Your task to perform on an android device: Open Google Maps and go to "Timeline" Image 0: 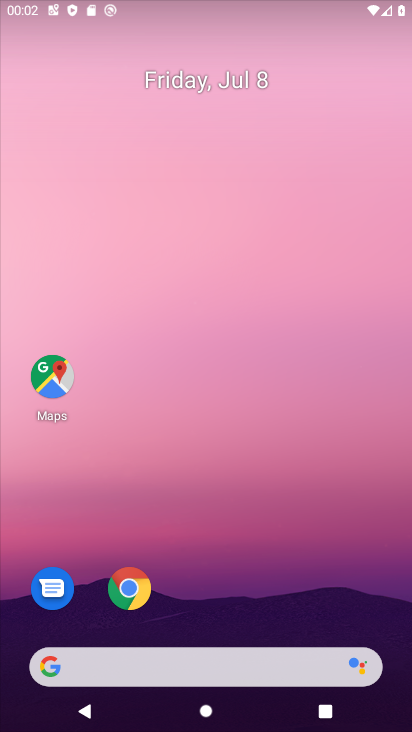
Step 0: drag from (203, 615) to (203, 47)
Your task to perform on an android device: Open Google Maps and go to "Timeline" Image 1: 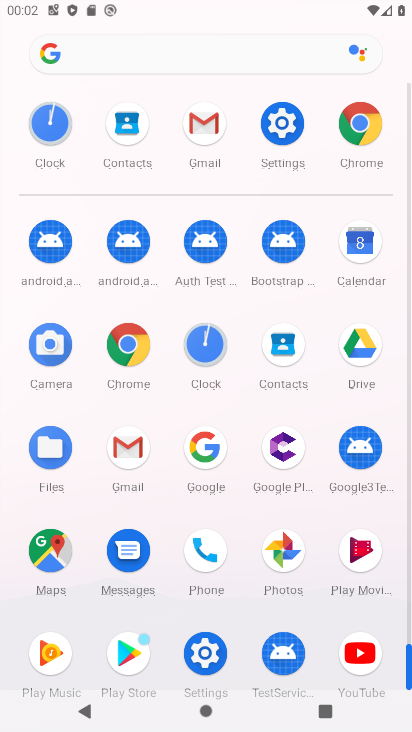
Step 1: drag from (169, 632) to (172, 289)
Your task to perform on an android device: Open Google Maps and go to "Timeline" Image 2: 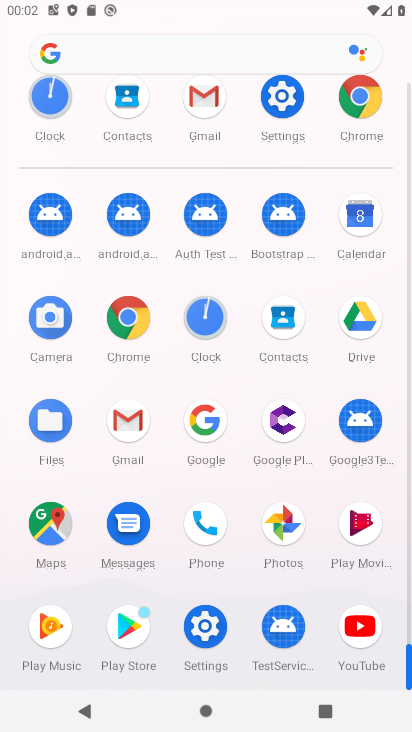
Step 2: drag from (156, 561) to (162, 374)
Your task to perform on an android device: Open Google Maps and go to "Timeline" Image 3: 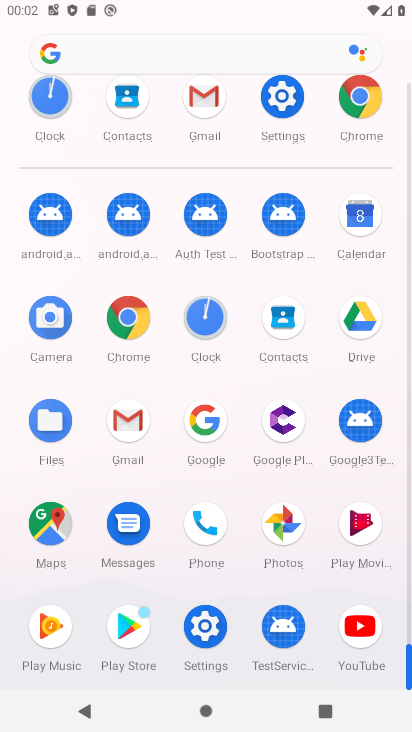
Step 3: drag from (166, 495) to (160, 200)
Your task to perform on an android device: Open Google Maps and go to "Timeline" Image 4: 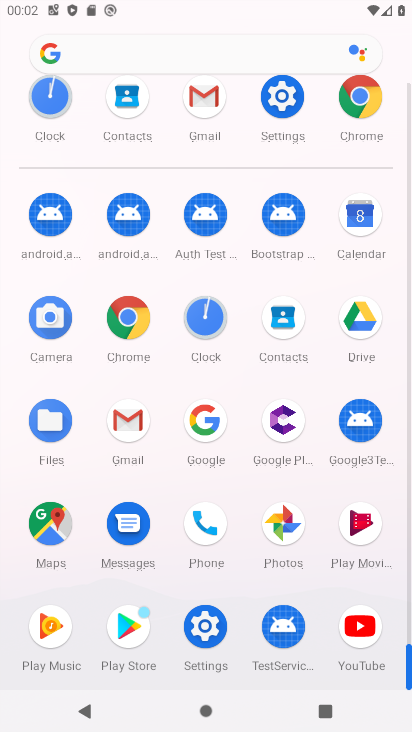
Step 4: click (39, 527)
Your task to perform on an android device: Open Google Maps and go to "Timeline" Image 5: 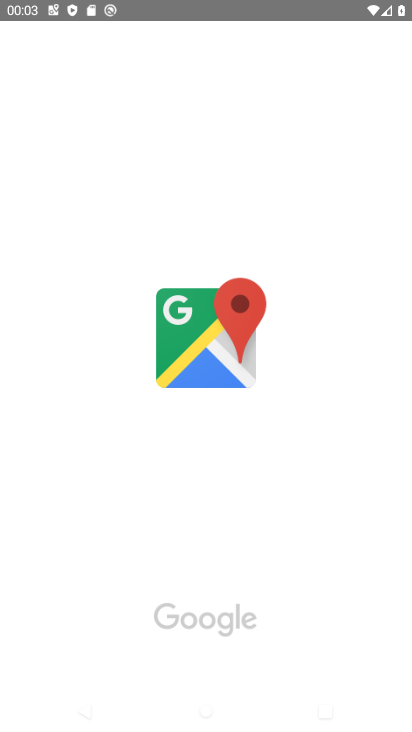
Step 5: drag from (235, 448) to (236, 265)
Your task to perform on an android device: Open Google Maps and go to "Timeline" Image 6: 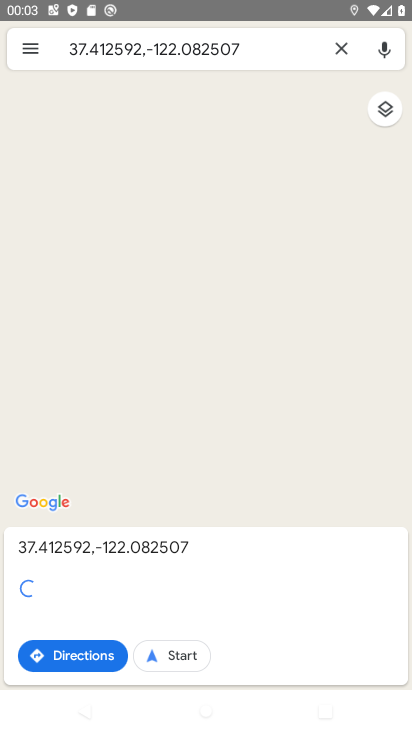
Step 6: drag from (190, 570) to (216, 123)
Your task to perform on an android device: Open Google Maps and go to "Timeline" Image 7: 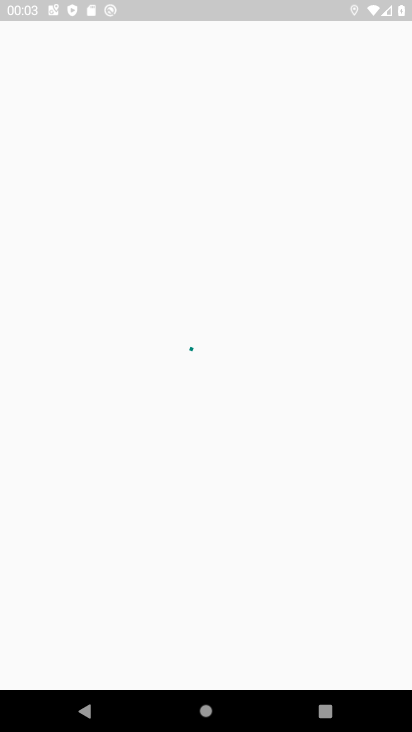
Step 7: press home button
Your task to perform on an android device: Open Google Maps and go to "Timeline" Image 8: 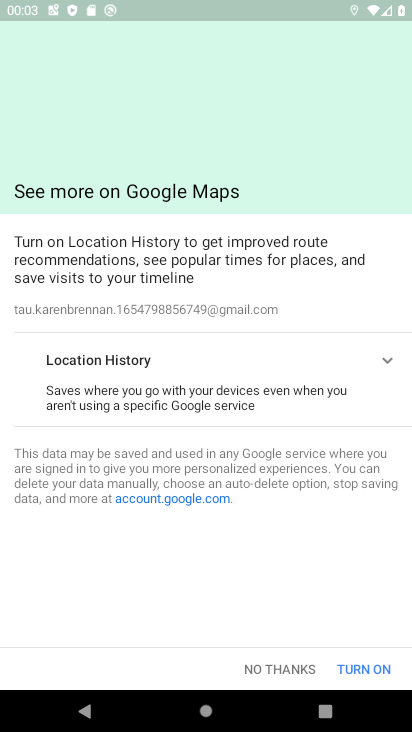
Step 8: press home button
Your task to perform on an android device: Open Google Maps and go to "Timeline" Image 9: 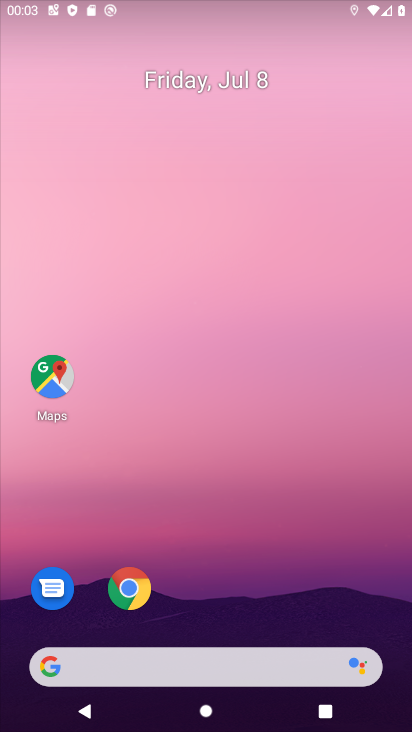
Step 9: press home button
Your task to perform on an android device: Open Google Maps and go to "Timeline" Image 10: 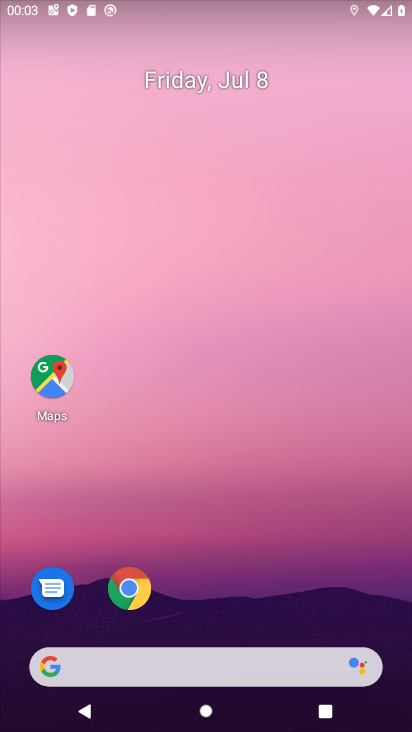
Step 10: drag from (224, 571) to (311, 81)
Your task to perform on an android device: Open Google Maps and go to "Timeline" Image 11: 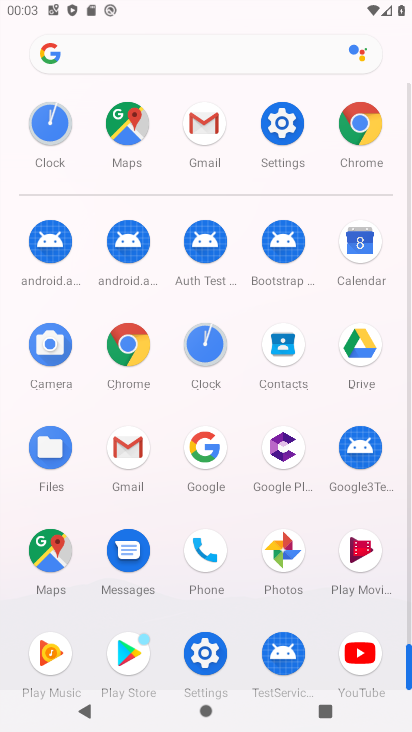
Step 11: drag from (170, 624) to (182, 226)
Your task to perform on an android device: Open Google Maps and go to "Timeline" Image 12: 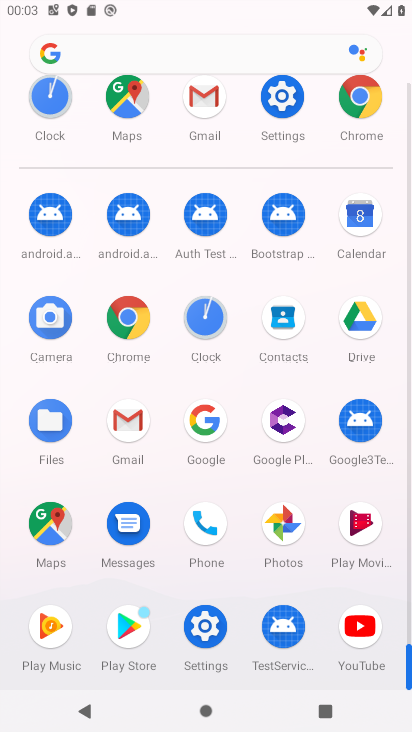
Step 12: drag from (253, 574) to (281, 295)
Your task to perform on an android device: Open Google Maps and go to "Timeline" Image 13: 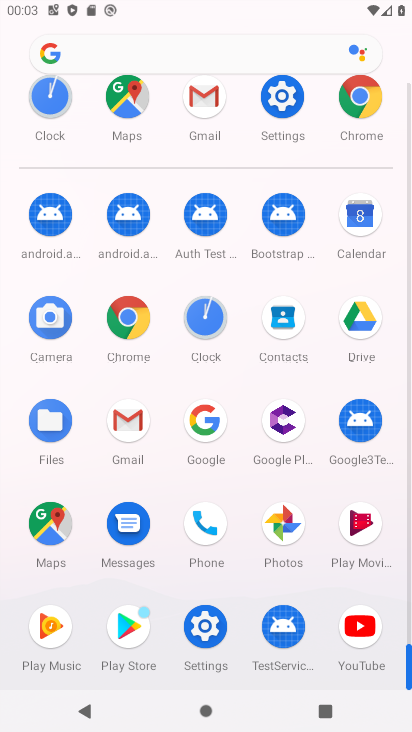
Step 13: drag from (239, 592) to (233, 344)
Your task to perform on an android device: Open Google Maps and go to "Timeline" Image 14: 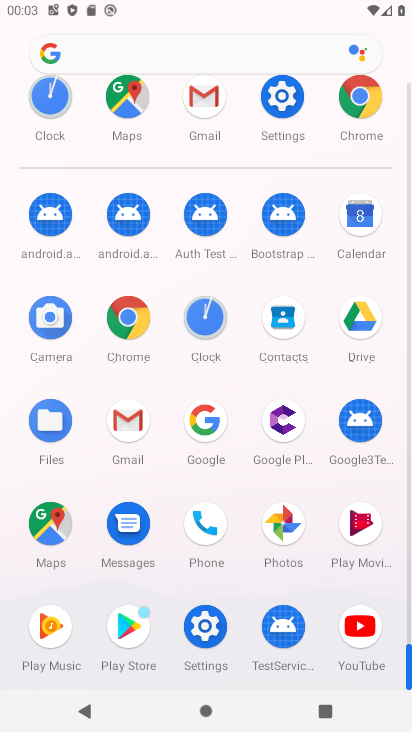
Step 14: drag from (236, 551) to (235, 363)
Your task to perform on an android device: Open Google Maps and go to "Timeline" Image 15: 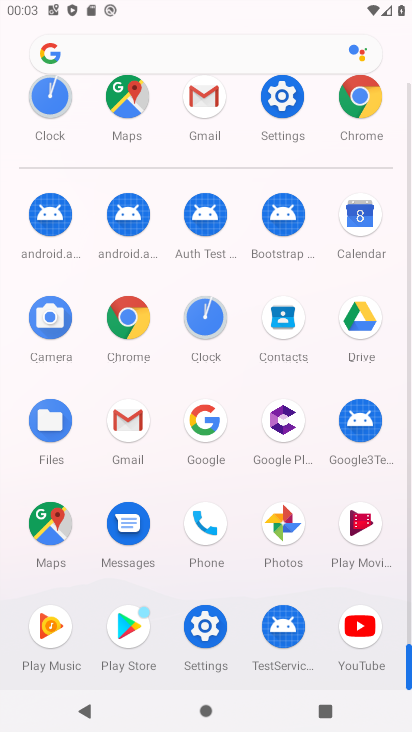
Step 15: drag from (227, 574) to (229, 332)
Your task to perform on an android device: Open Google Maps and go to "Timeline" Image 16: 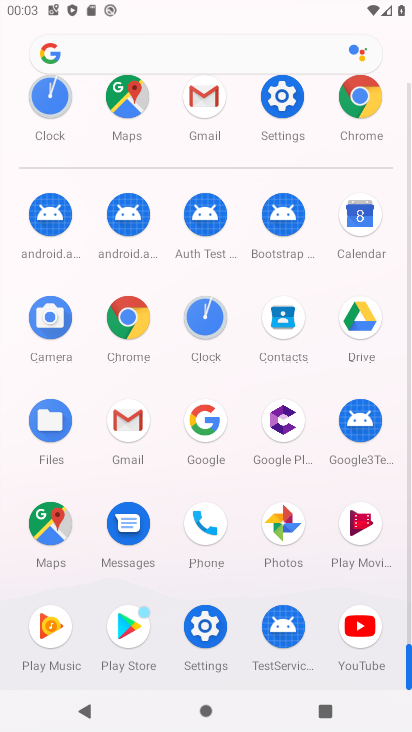
Step 16: drag from (233, 544) to (266, 298)
Your task to perform on an android device: Open Google Maps and go to "Timeline" Image 17: 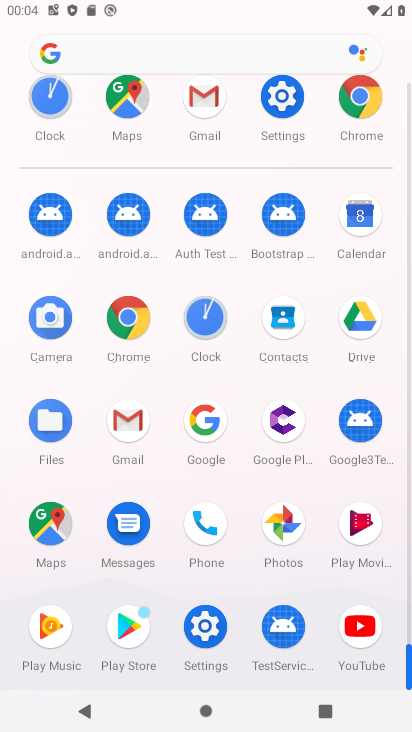
Step 17: click (57, 518)
Your task to perform on an android device: Open Google Maps and go to "Timeline" Image 18: 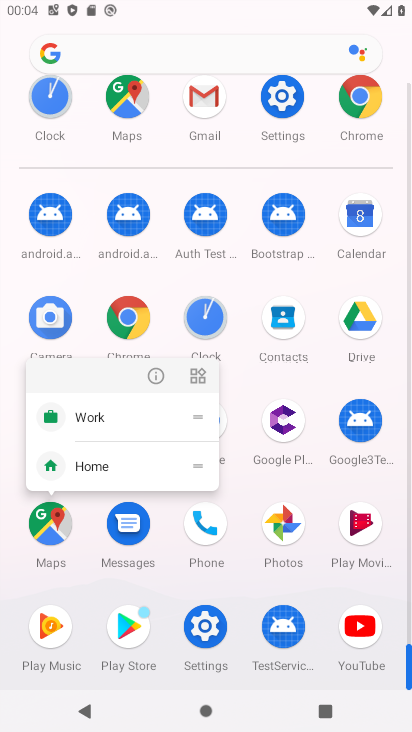
Step 18: click (155, 368)
Your task to perform on an android device: Open Google Maps and go to "Timeline" Image 19: 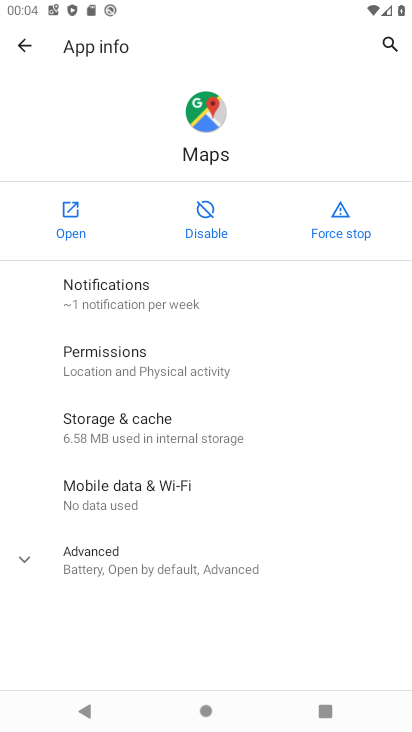
Step 19: click (59, 210)
Your task to perform on an android device: Open Google Maps and go to "Timeline" Image 20: 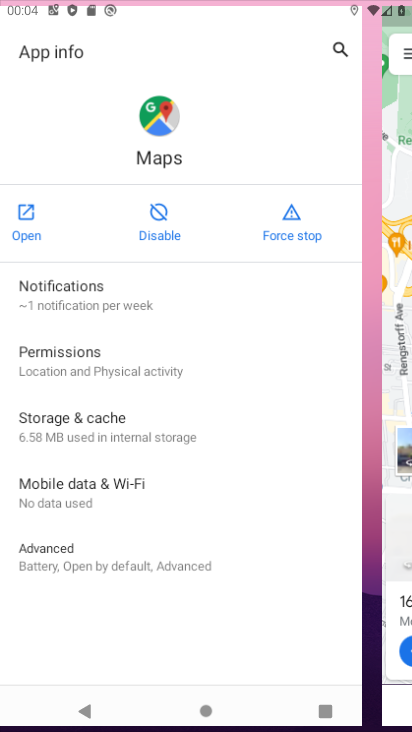
Step 20: drag from (220, 605) to (262, 209)
Your task to perform on an android device: Open Google Maps and go to "Timeline" Image 21: 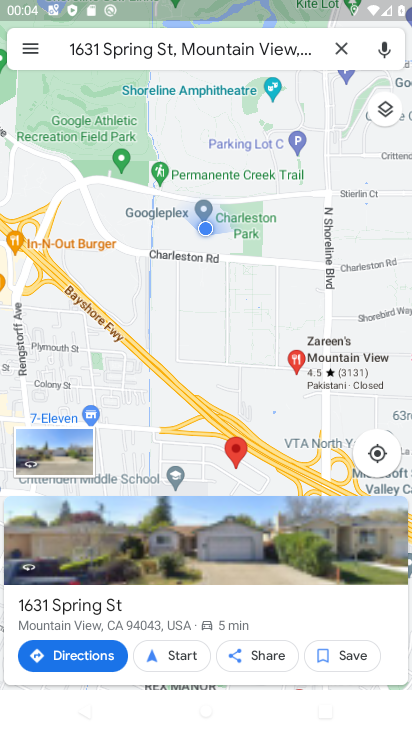
Step 21: drag from (192, 550) to (208, 164)
Your task to perform on an android device: Open Google Maps and go to "Timeline" Image 22: 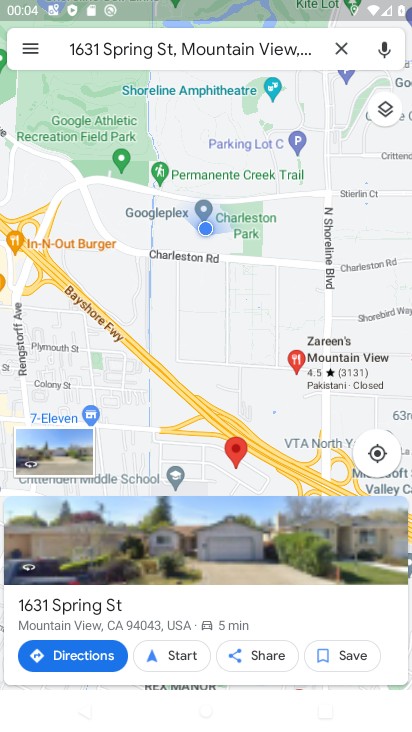
Step 22: drag from (181, 547) to (188, 349)
Your task to perform on an android device: Open Google Maps and go to "Timeline" Image 23: 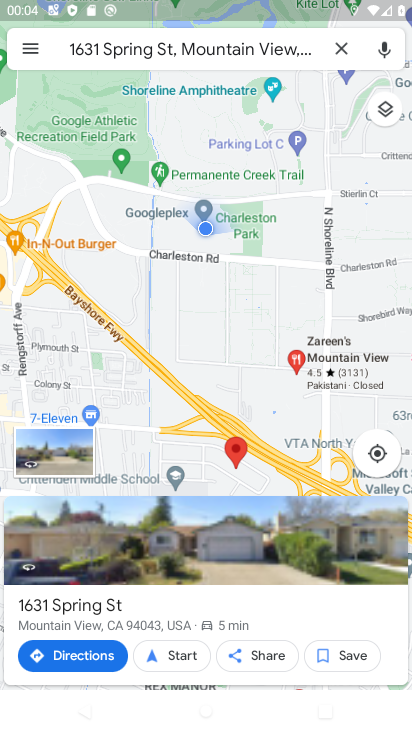
Step 23: drag from (158, 532) to (149, 371)
Your task to perform on an android device: Open Google Maps and go to "Timeline" Image 24: 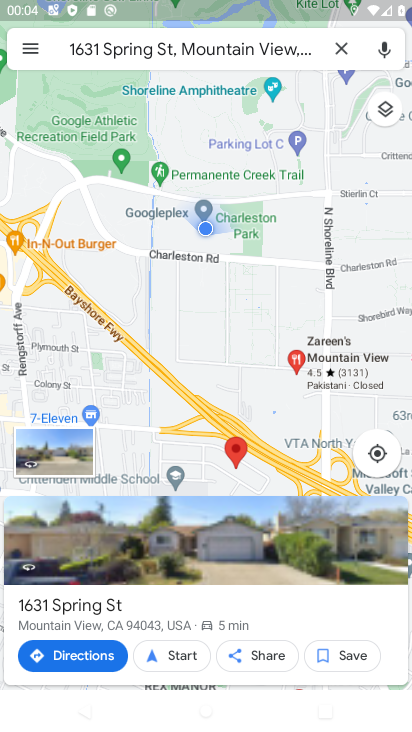
Step 24: drag from (215, 456) to (260, 145)
Your task to perform on an android device: Open Google Maps and go to "Timeline" Image 25: 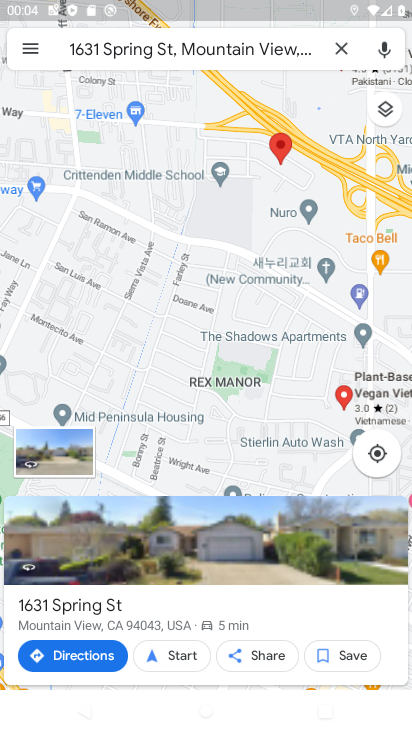
Step 25: drag from (182, 553) to (176, 324)
Your task to perform on an android device: Open Google Maps and go to "Timeline" Image 26: 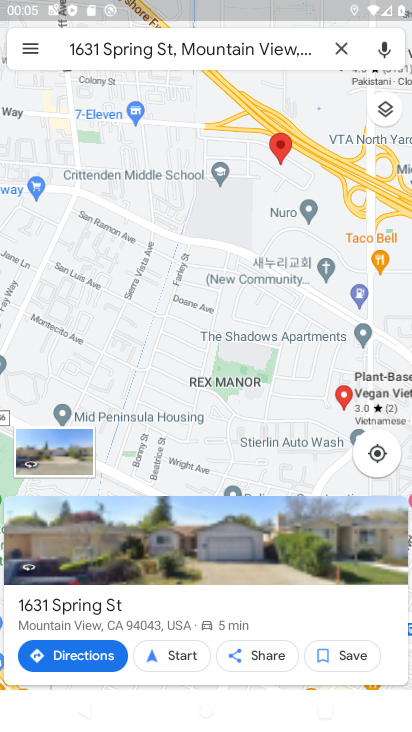
Step 26: drag from (208, 401) to (255, 211)
Your task to perform on an android device: Open Google Maps and go to "Timeline" Image 27: 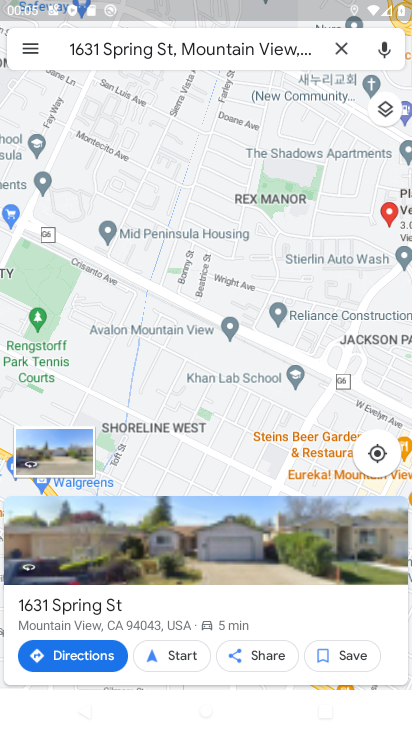
Step 27: drag from (298, 201) to (200, 444)
Your task to perform on an android device: Open Google Maps and go to "Timeline" Image 28: 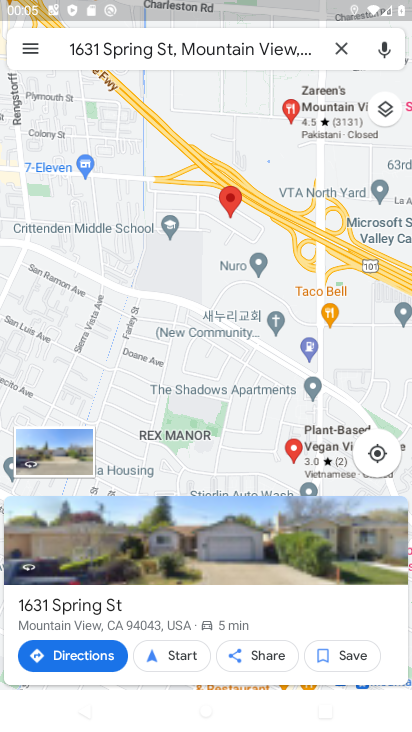
Step 28: click (330, 48)
Your task to perform on an android device: Open Google Maps and go to "Timeline" Image 29: 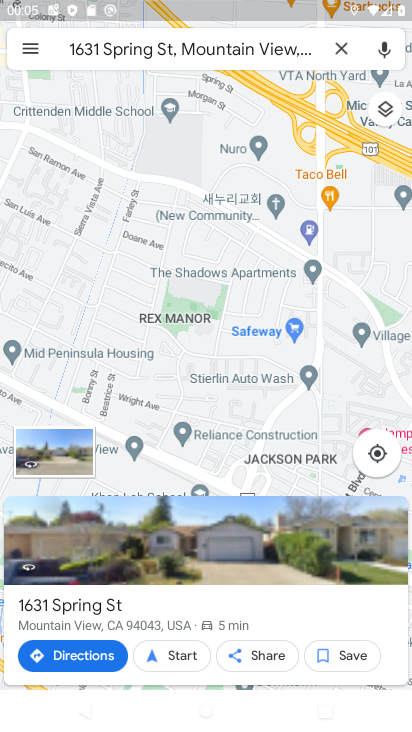
Step 29: click (35, 52)
Your task to perform on an android device: Open Google Maps and go to "Timeline" Image 30: 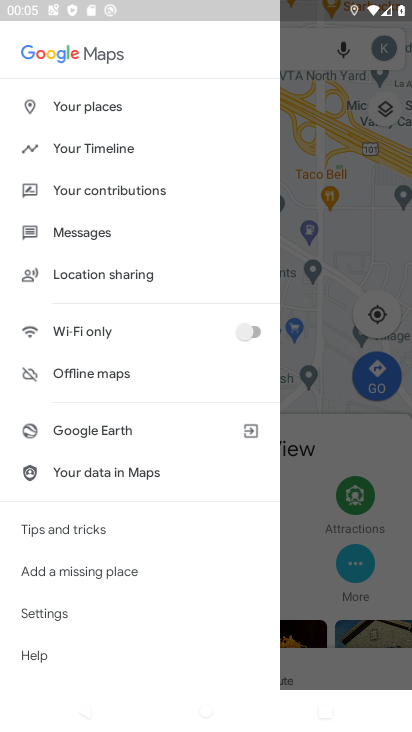
Step 30: drag from (101, 592) to (94, 144)
Your task to perform on an android device: Open Google Maps and go to "Timeline" Image 31: 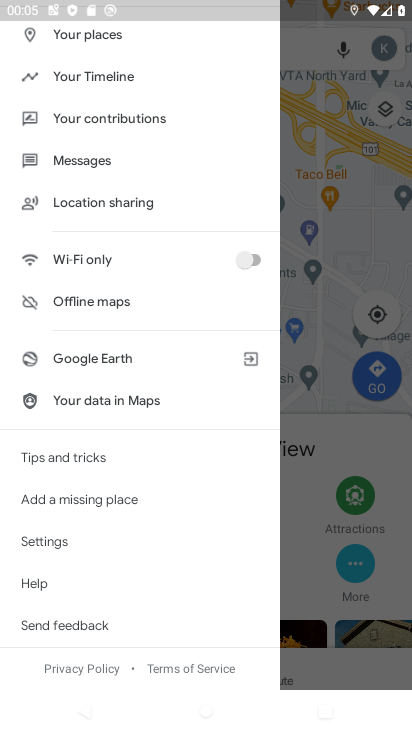
Step 31: drag from (149, 93) to (155, 603)
Your task to perform on an android device: Open Google Maps and go to "Timeline" Image 32: 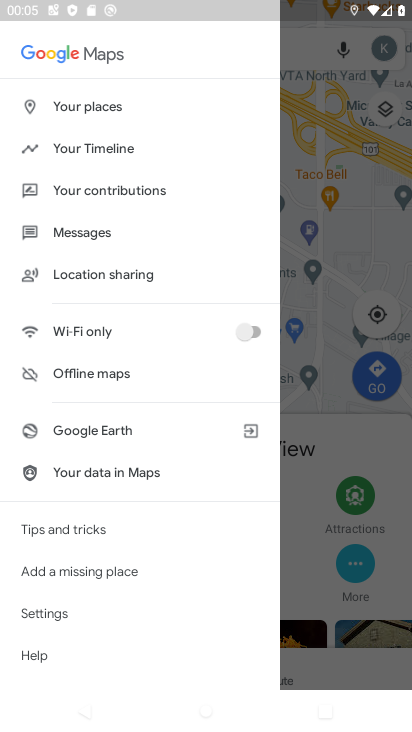
Step 32: drag from (128, 141) to (126, 725)
Your task to perform on an android device: Open Google Maps and go to "Timeline" Image 33: 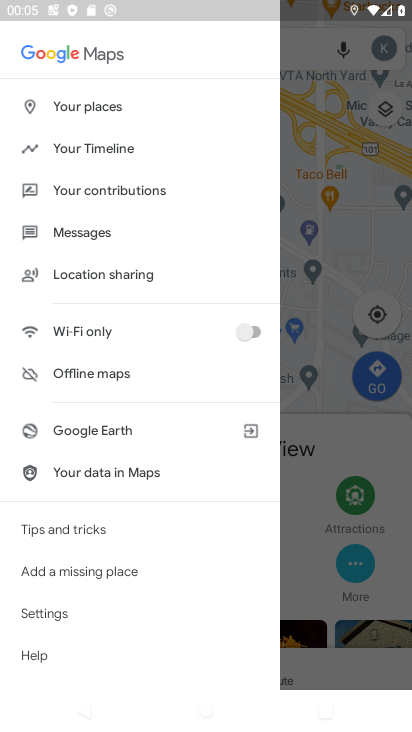
Step 33: click (93, 136)
Your task to perform on an android device: Open Google Maps and go to "Timeline" Image 34: 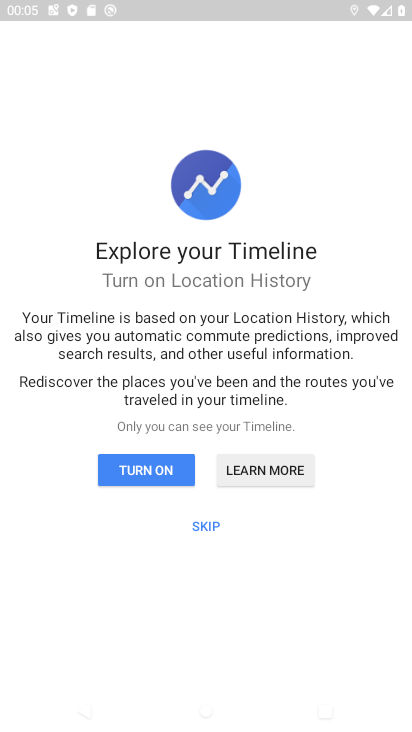
Step 34: drag from (191, 579) to (183, 189)
Your task to perform on an android device: Open Google Maps and go to "Timeline" Image 35: 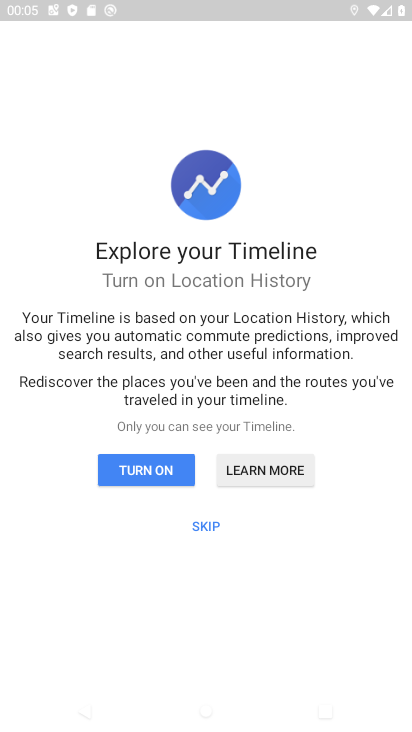
Step 35: click (200, 530)
Your task to perform on an android device: Open Google Maps and go to "Timeline" Image 36: 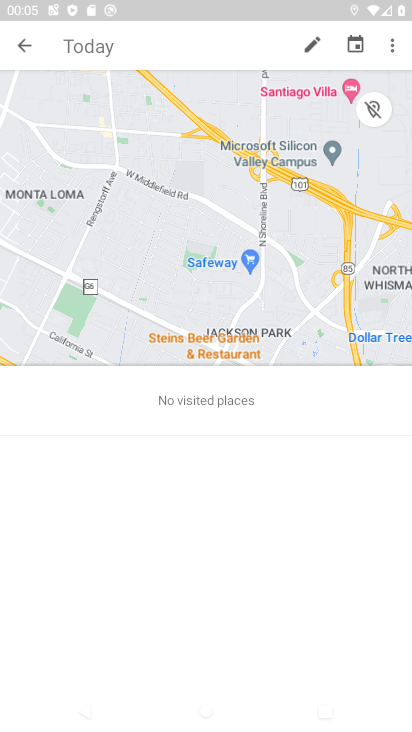
Step 36: drag from (257, 171) to (407, 245)
Your task to perform on an android device: Open Google Maps and go to "Timeline" Image 37: 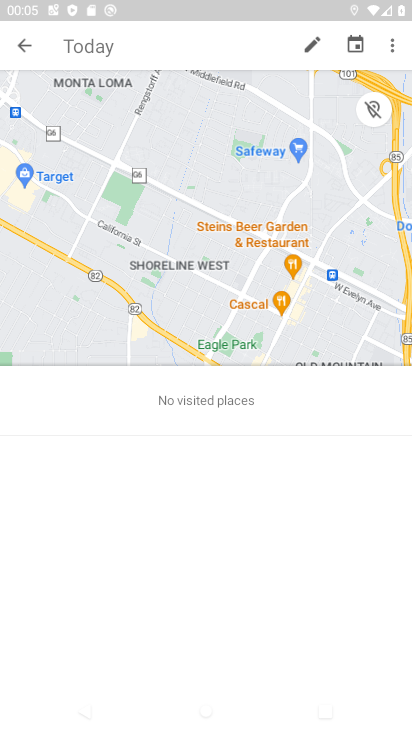
Step 37: drag from (151, 545) to (239, 85)
Your task to perform on an android device: Open Google Maps and go to "Timeline" Image 38: 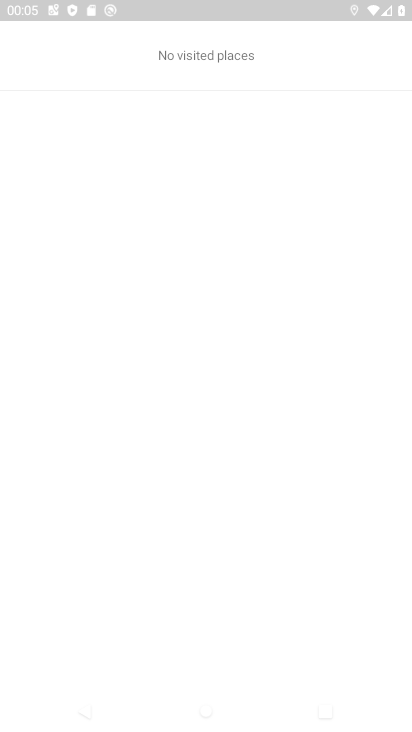
Step 38: drag from (292, 496) to (279, 219)
Your task to perform on an android device: Open Google Maps and go to "Timeline" Image 39: 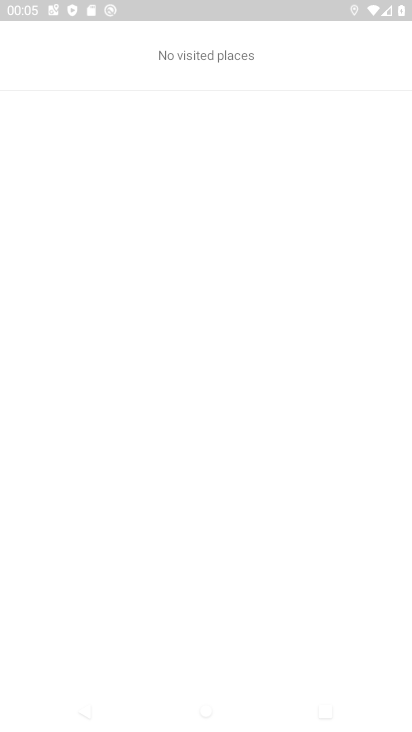
Step 39: drag from (211, 159) to (341, 553)
Your task to perform on an android device: Open Google Maps and go to "Timeline" Image 40: 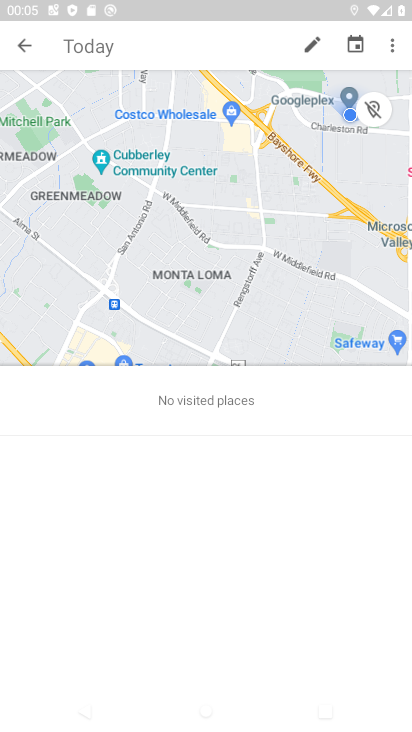
Step 40: drag from (234, 468) to (241, 266)
Your task to perform on an android device: Open Google Maps and go to "Timeline" Image 41: 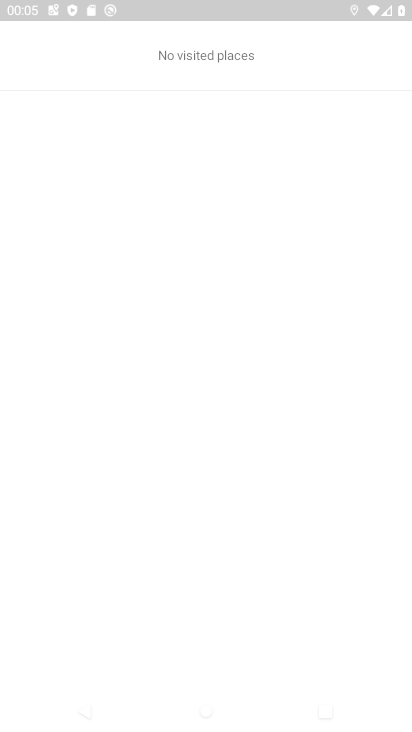
Step 41: drag from (97, 47) to (357, 615)
Your task to perform on an android device: Open Google Maps and go to "Timeline" Image 42: 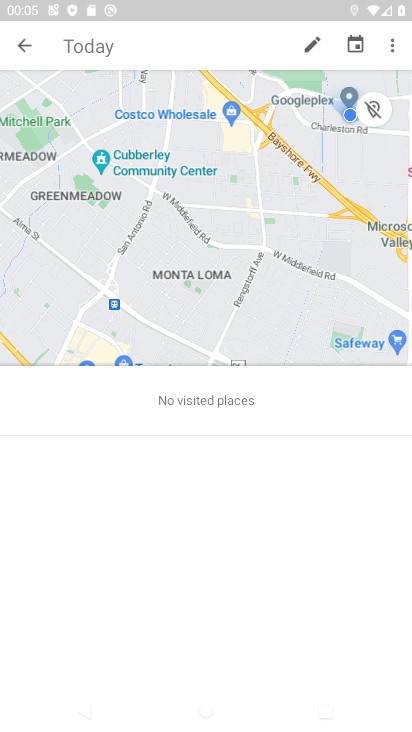
Step 42: drag from (240, 533) to (237, 249)
Your task to perform on an android device: Open Google Maps and go to "Timeline" Image 43: 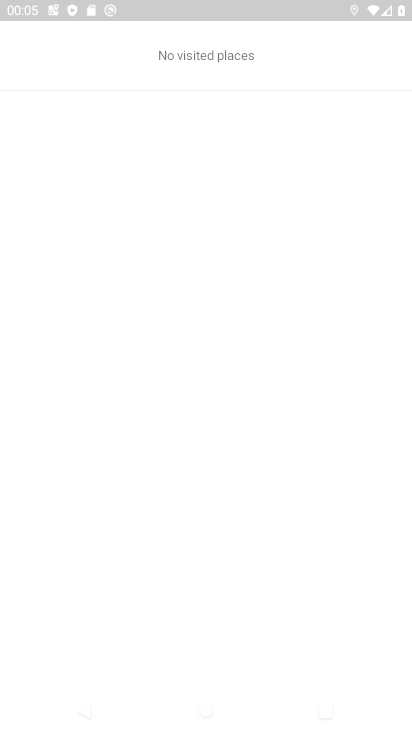
Step 43: drag from (133, 118) to (239, 414)
Your task to perform on an android device: Open Google Maps and go to "Timeline" Image 44: 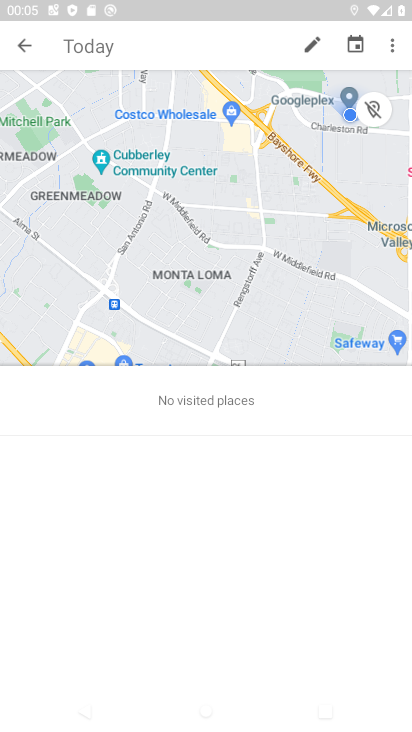
Step 44: drag from (159, 433) to (389, 162)
Your task to perform on an android device: Open Google Maps and go to "Timeline" Image 45: 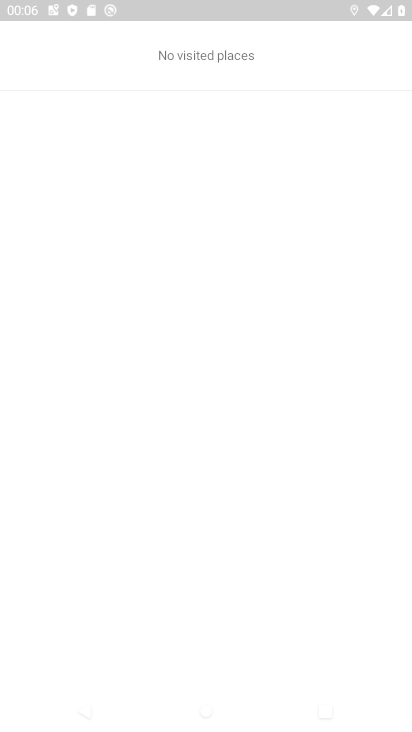
Step 45: drag from (217, 602) to (241, 402)
Your task to perform on an android device: Open Google Maps and go to "Timeline" Image 46: 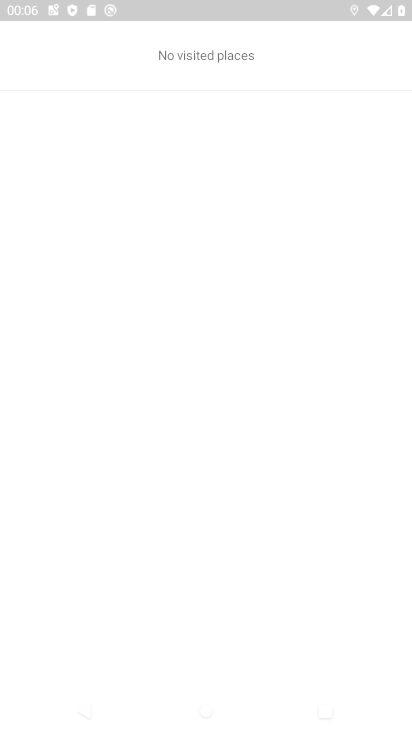
Step 46: drag from (224, 519) to (196, 101)
Your task to perform on an android device: Open Google Maps and go to "Timeline" Image 47: 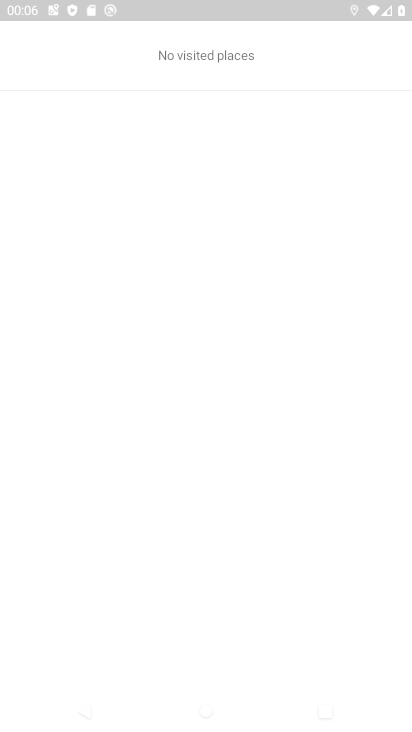
Step 47: drag from (202, 373) to (202, 223)
Your task to perform on an android device: Open Google Maps and go to "Timeline" Image 48: 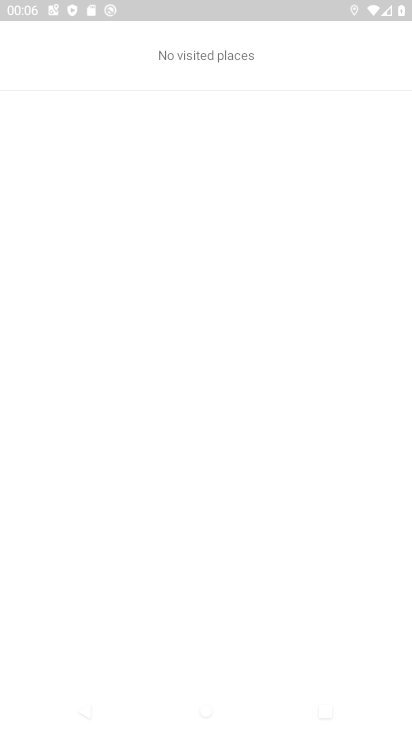
Step 48: click (191, 96)
Your task to perform on an android device: Open Google Maps and go to "Timeline" Image 49: 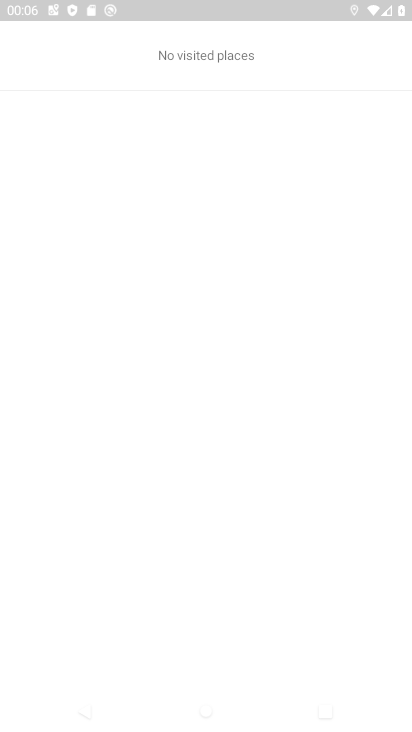
Step 49: press home button
Your task to perform on an android device: Open Google Maps and go to "Timeline" Image 50: 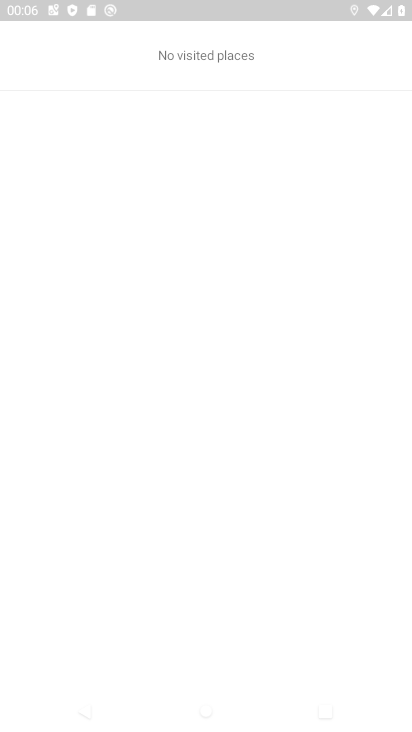
Step 50: press home button
Your task to perform on an android device: Open Google Maps and go to "Timeline" Image 51: 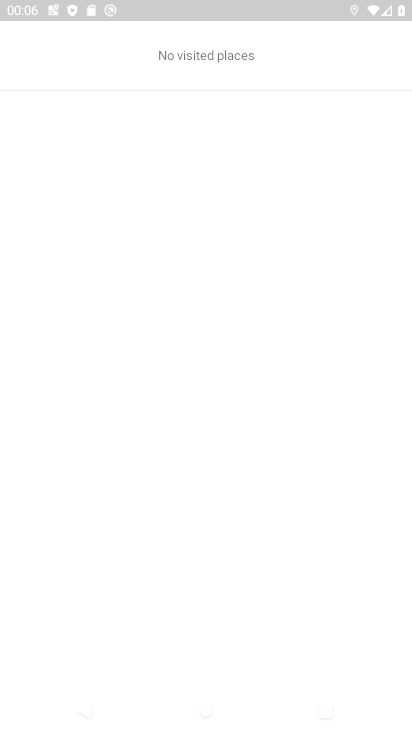
Step 51: drag from (216, 524) to (246, 0)
Your task to perform on an android device: Open Google Maps and go to "Timeline" Image 52: 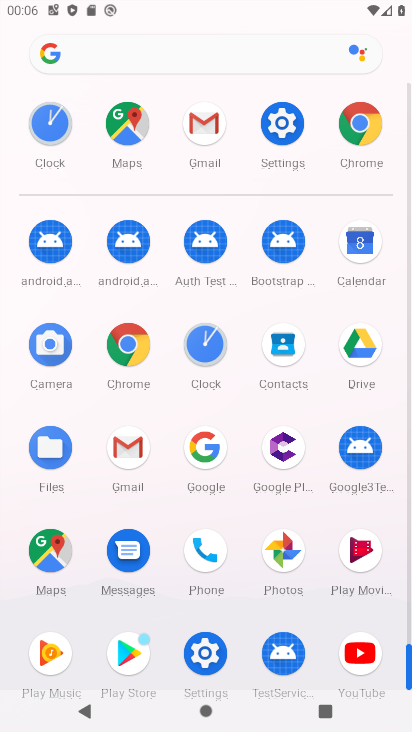
Step 52: drag from (165, 624) to (148, 281)
Your task to perform on an android device: Open Google Maps and go to "Timeline" Image 53: 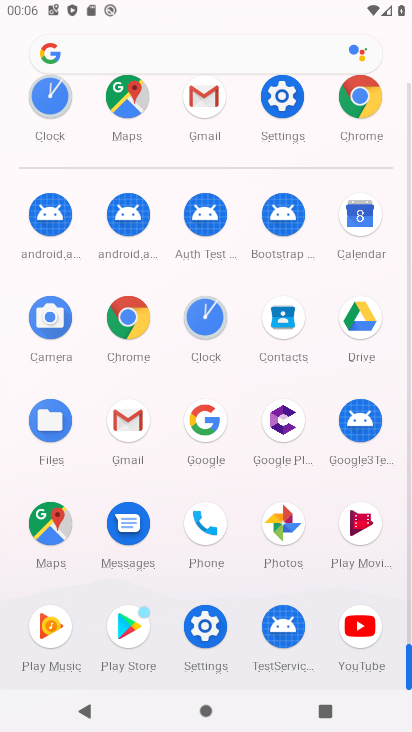
Step 53: click (120, 417)
Your task to perform on an android device: Open Google Maps and go to "Timeline" Image 54: 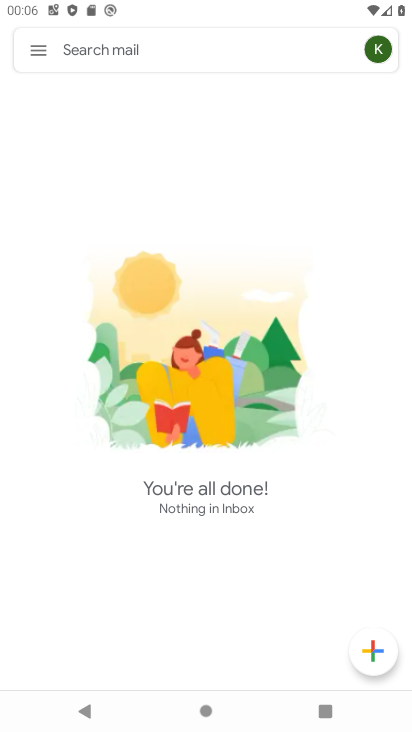
Step 54: drag from (213, 623) to (251, 483)
Your task to perform on an android device: Open Google Maps and go to "Timeline" Image 55: 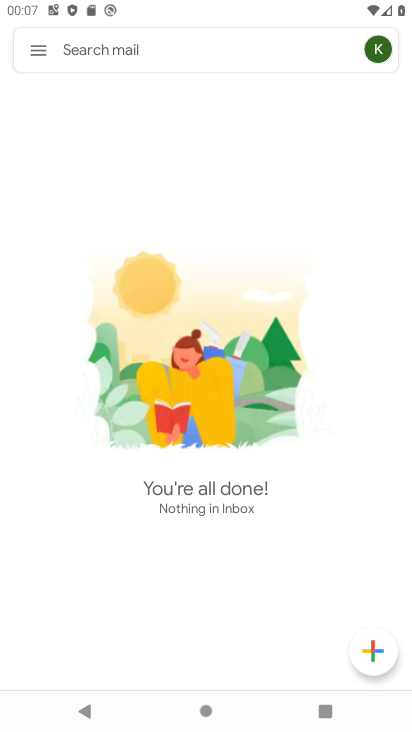
Step 55: drag from (220, 625) to (169, 194)
Your task to perform on an android device: Open Google Maps and go to "Timeline" Image 56: 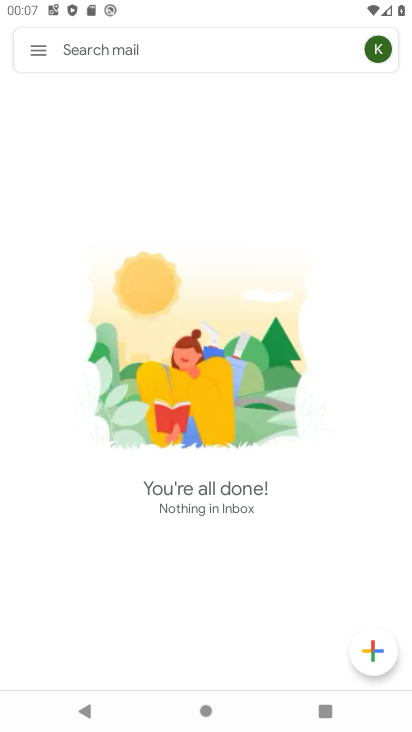
Step 56: press home button
Your task to perform on an android device: Open Google Maps and go to "Timeline" Image 57: 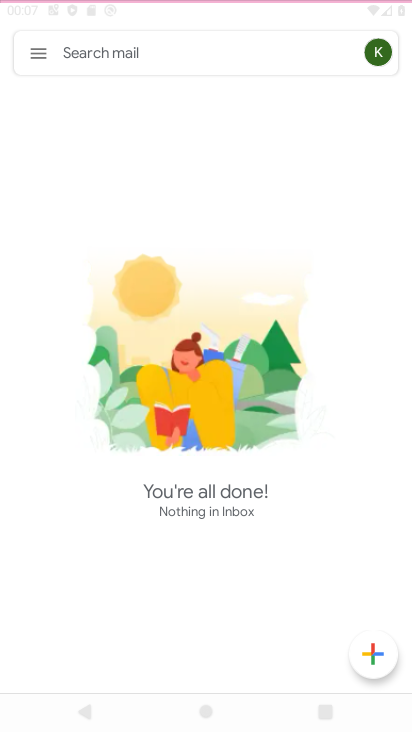
Step 57: drag from (159, 584) to (227, 147)
Your task to perform on an android device: Open Google Maps and go to "Timeline" Image 58: 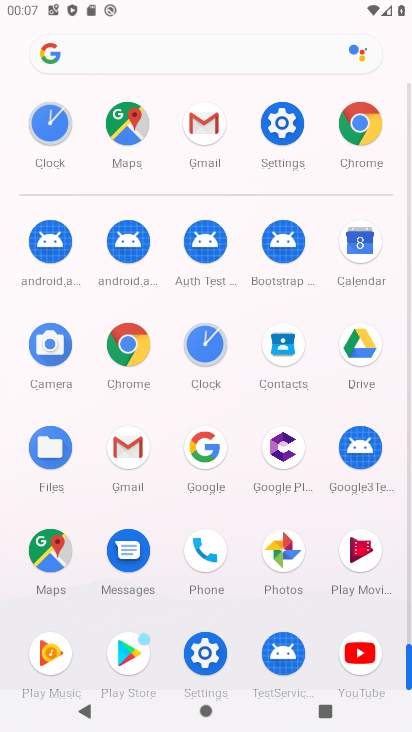
Step 58: click (54, 533)
Your task to perform on an android device: Open Google Maps and go to "Timeline" Image 59: 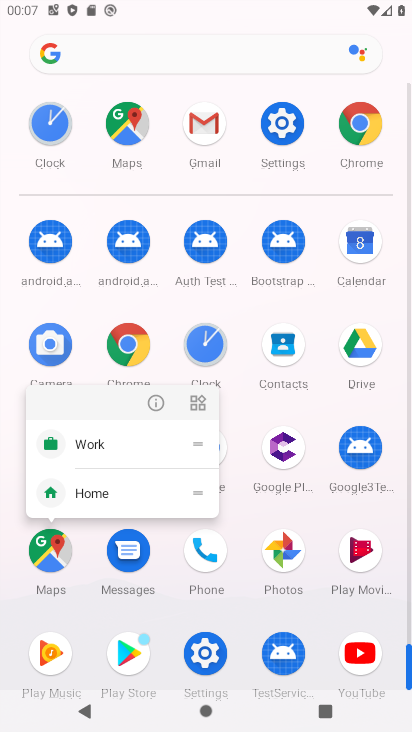
Step 59: click (156, 402)
Your task to perform on an android device: Open Google Maps and go to "Timeline" Image 60: 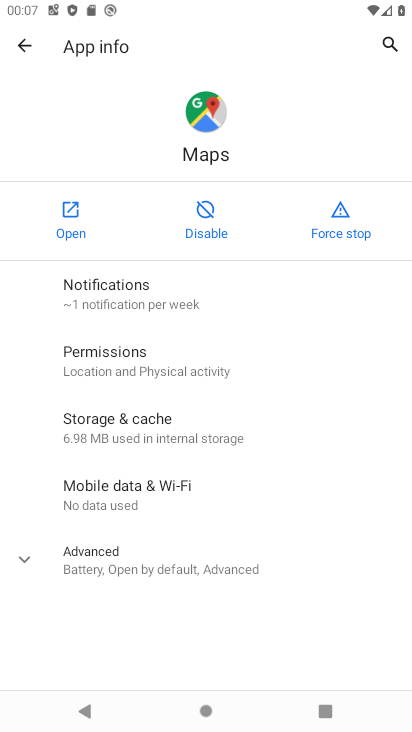
Step 60: click (86, 228)
Your task to perform on an android device: Open Google Maps and go to "Timeline" Image 61: 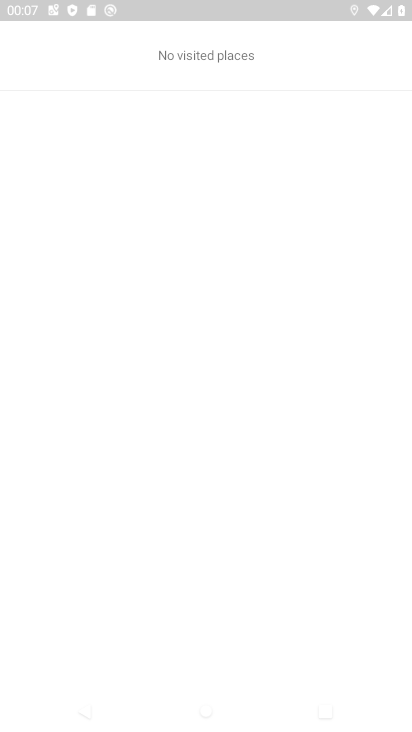
Step 61: press back button
Your task to perform on an android device: Open Google Maps and go to "Timeline" Image 62: 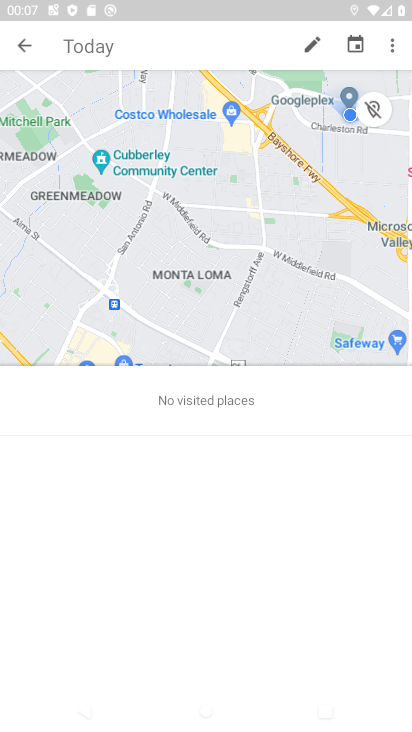
Step 62: click (36, 41)
Your task to perform on an android device: Open Google Maps and go to "Timeline" Image 63: 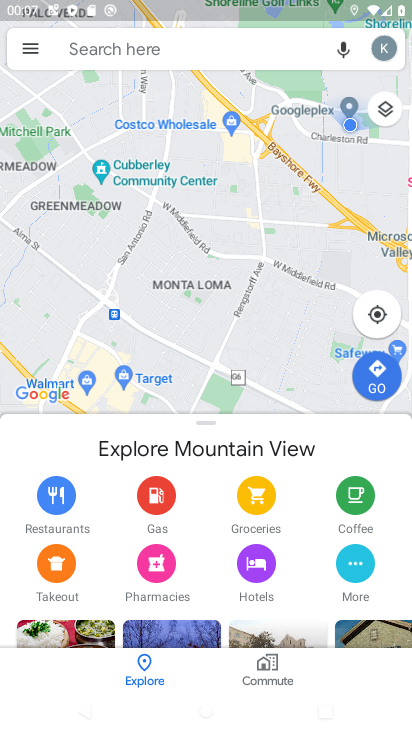
Step 63: click (33, 42)
Your task to perform on an android device: Open Google Maps and go to "Timeline" Image 64: 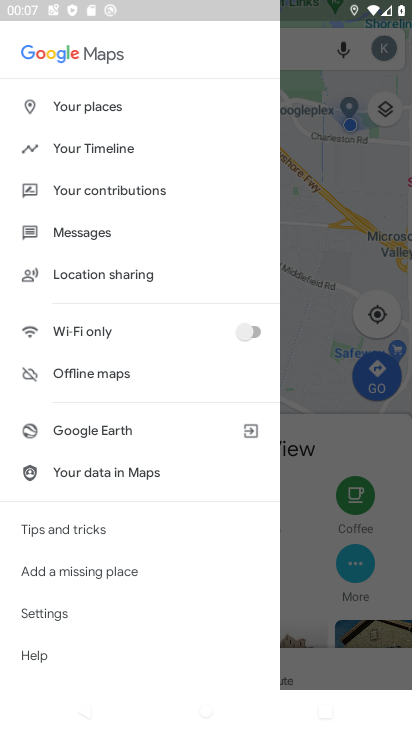
Step 64: click (92, 155)
Your task to perform on an android device: Open Google Maps and go to "Timeline" Image 65: 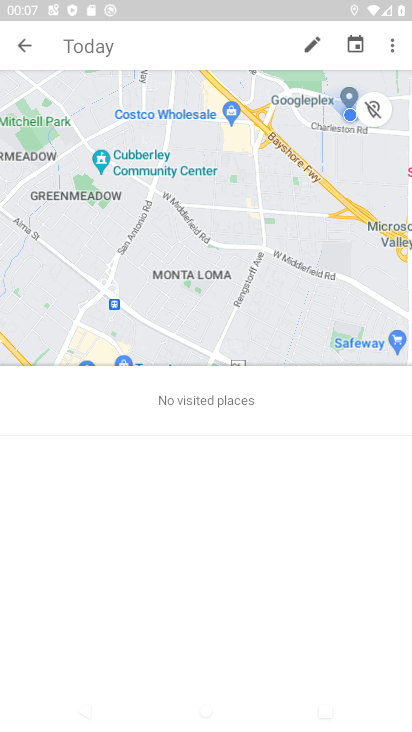
Step 65: task complete